Your task to perform on an android device: turn on improve location accuracy Image 0: 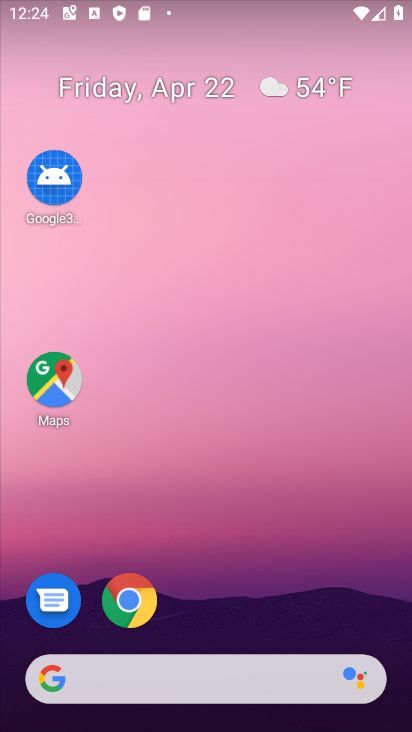
Step 0: drag from (240, 500) to (252, 142)
Your task to perform on an android device: turn on improve location accuracy Image 1: 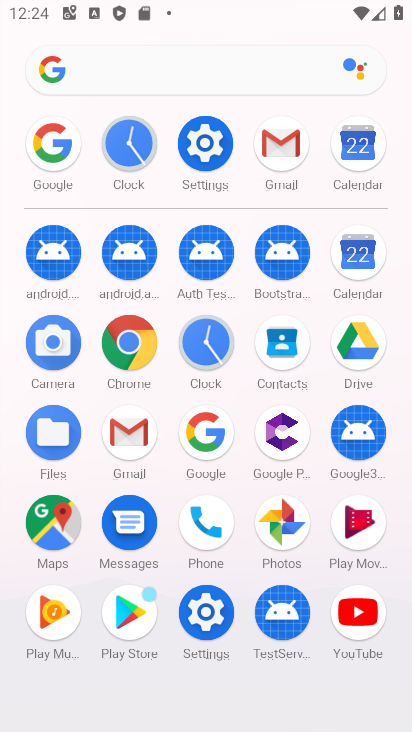
Step 1: click (209, 145)
Your task to perform on an android device: turn on improve location accuracy Image 2: 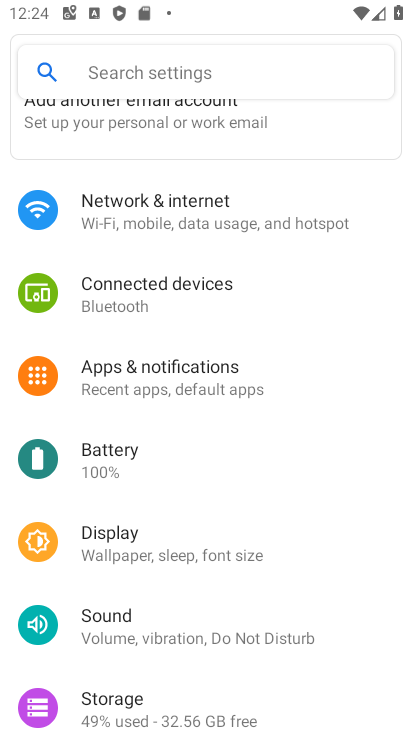
Step 2: drag from (159, 614) to (147, 352)
Your task to perform on an android device: turn on improve location accuracy Image 3: 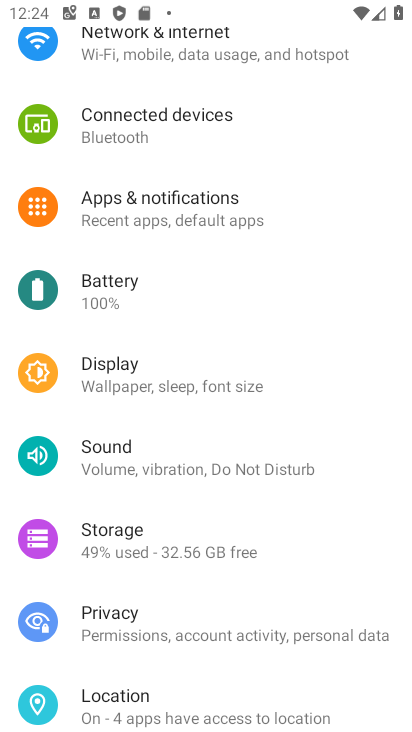
Step 3: click (156, 704)
Your task to perform on an android device: turn on improve location accuracy Image 4: 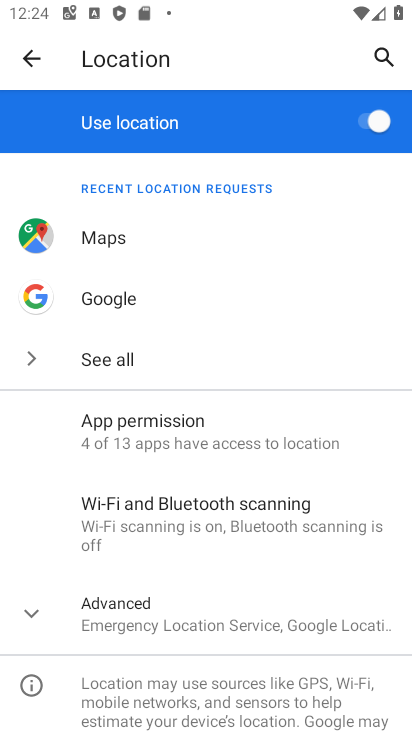
Step 4: click (184, 615)
Your task to perform on an android device: turn on improve location accuracy Image 5: 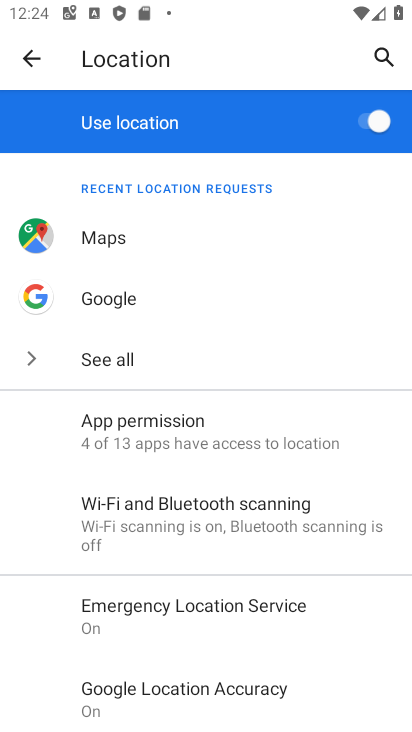
Step 5: drag from (184, 615) to (178, 372)
Your task to perform on an android device: turn on improve location accuracy Image 6: 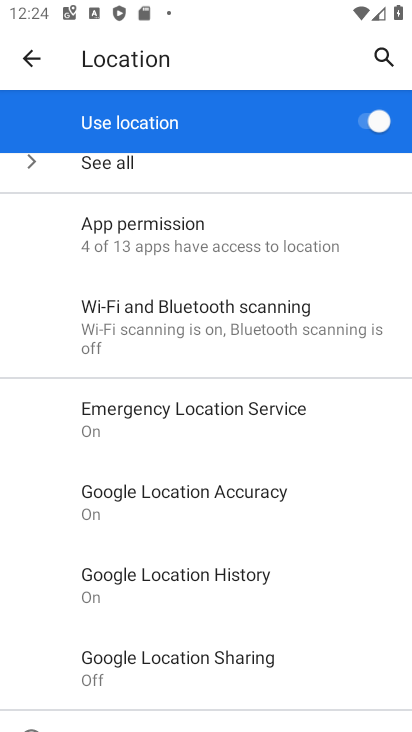
Step 6: click (199, 489)
Your task to perform on an android device: turn on improve location accuracy Image 7: 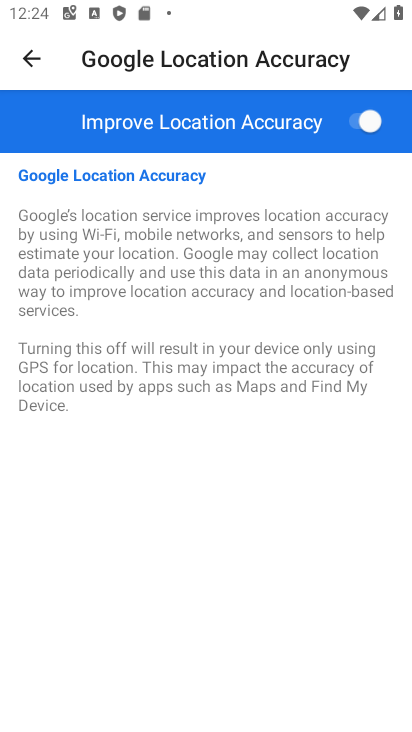
Step 7: task complete